Your task to perform on an android device: turn on notifications settings in the gmail app Image 0: 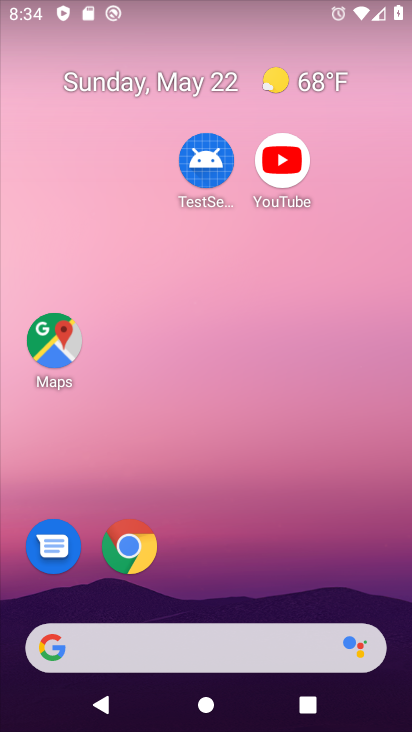
Step 0: drag from (266, 687) to (174, 111)
Your task to perform on an android device: turn on notifications settings in the gmail app Image 1: 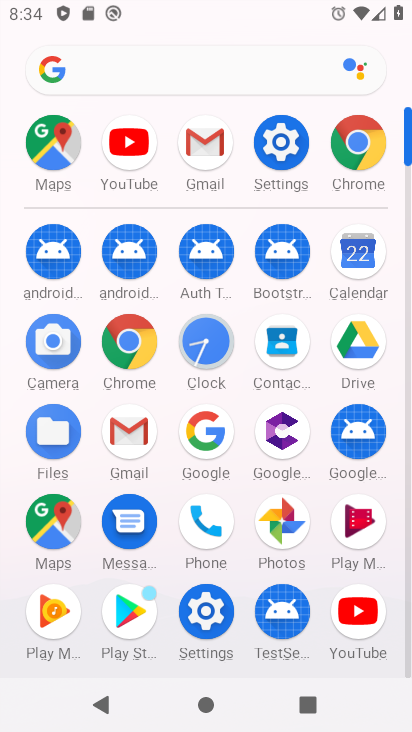
Step 1: click (129, 436)
Your task to perform on an android device: turn on notifications settings in the gmail app Image 2: 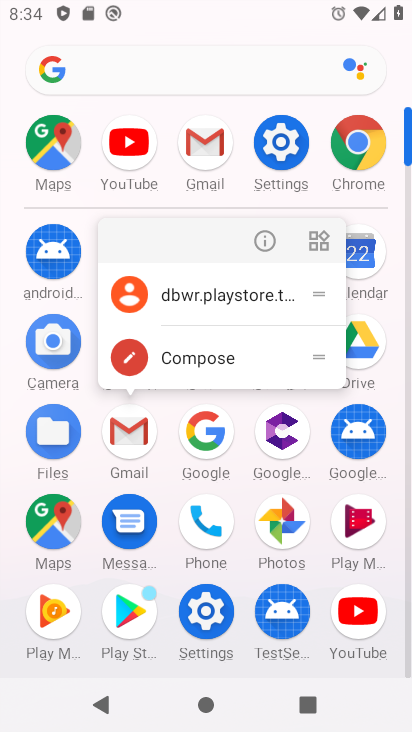
Step 2: click (130, 424)
Your task to perform on an android device: turn on notifications settings in the gmail app Image 3: 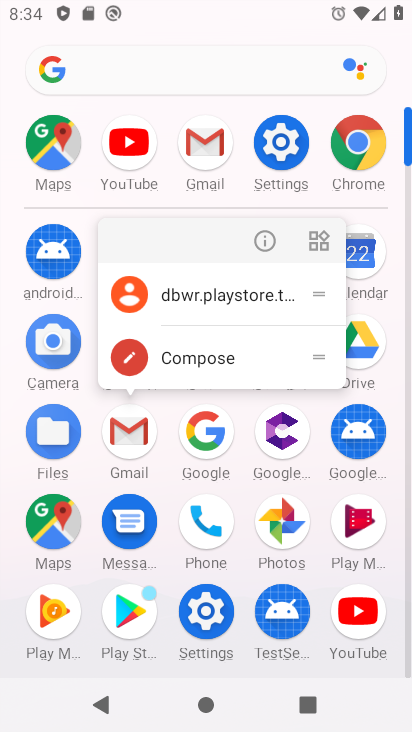
Step 3: click (128, 424)
Your task to perform on an android device: turn on notifications settings in the gmail app Image 4: 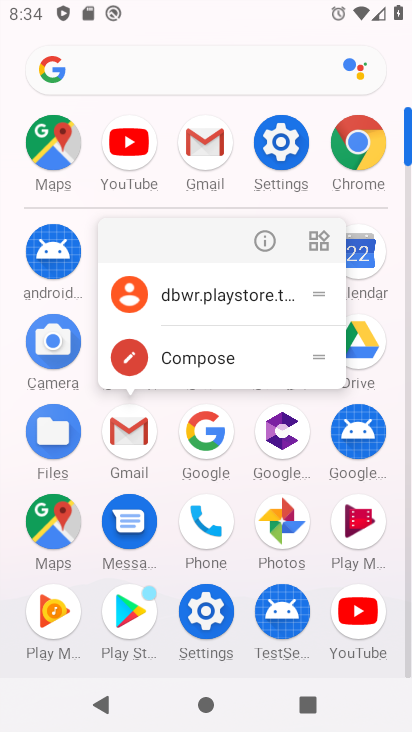
Step 4: click (128, 424)
Your task to perform on an android device: turn on notifications settings in the gmail app Image 5: 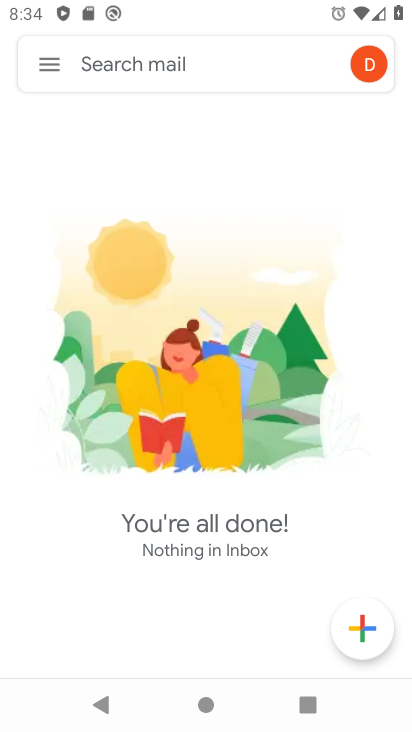
Step 5: click (47, 62)
Your task to perform on an android device: turn on notifications settings in the gmail app Image 6: 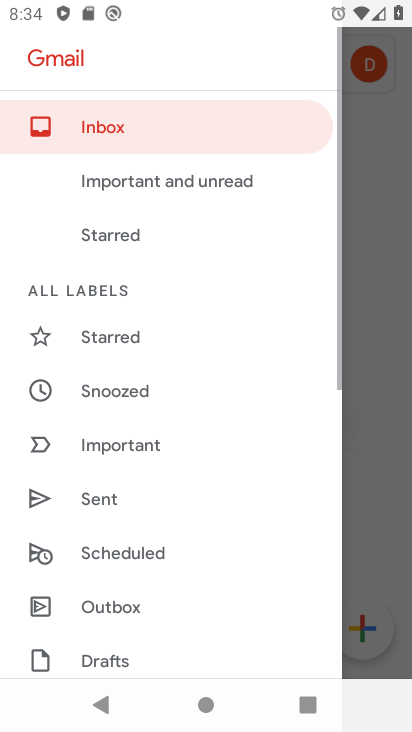
Step 6: drag from (112, 540) to (104, 70)
Your task to perform on an android device: turn on notifications settings in the gmail app Image 7: 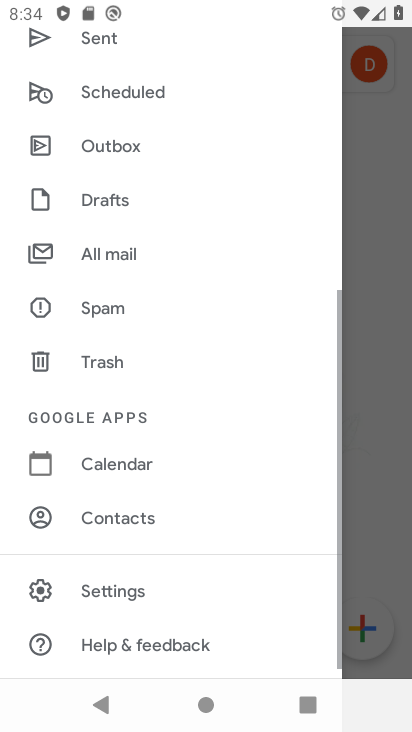
Step 7: drag from (172, 445) to (169, 179)
Your task to perform on an android device: turn on notifications settings in the gmail app Image 8: 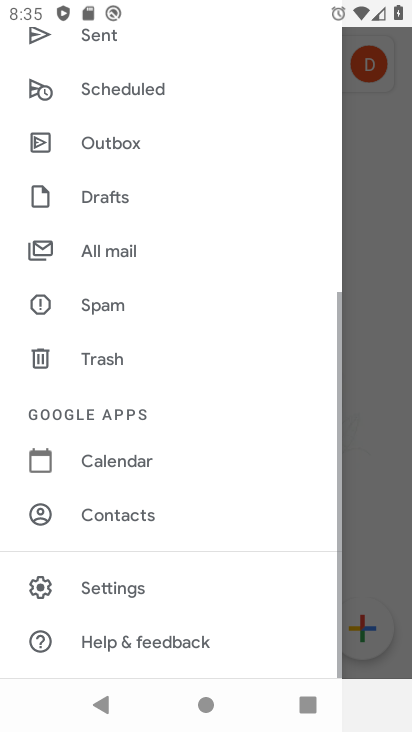
Step 8: click (106, 585)
Your task to perform on an android device: turn on notifications settings in the gmail app Image 9: 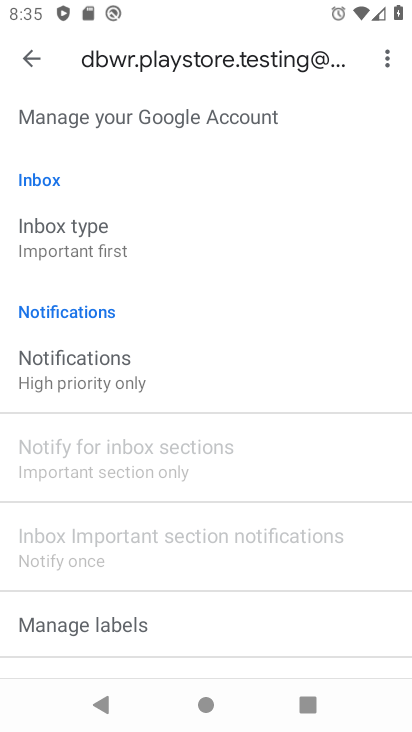
Step 9: click (75, 376)
Your task to perform on an android device: turn on notifications settings in the gmail app Image 10: 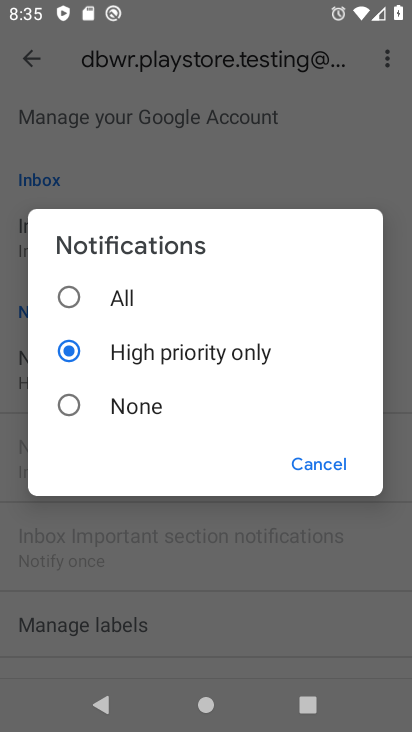
Step 10: click (63, 283)
Your task to perform on an android device: turn on notifications settings in the gmail app Image 11: 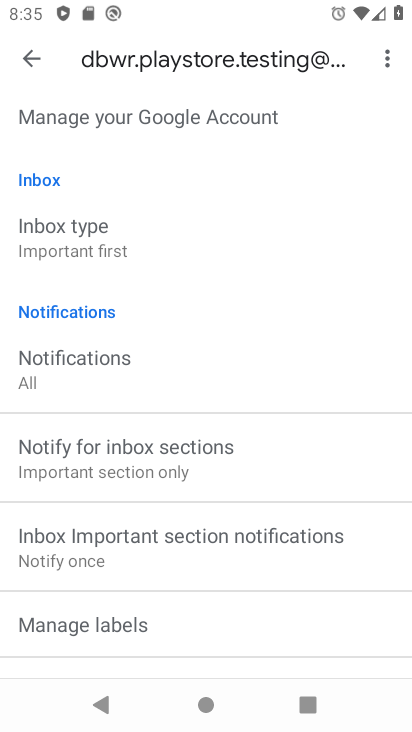
Step 11: task complete